Your task to perform on an android device: visit the assistant section in the google photos Image 0: 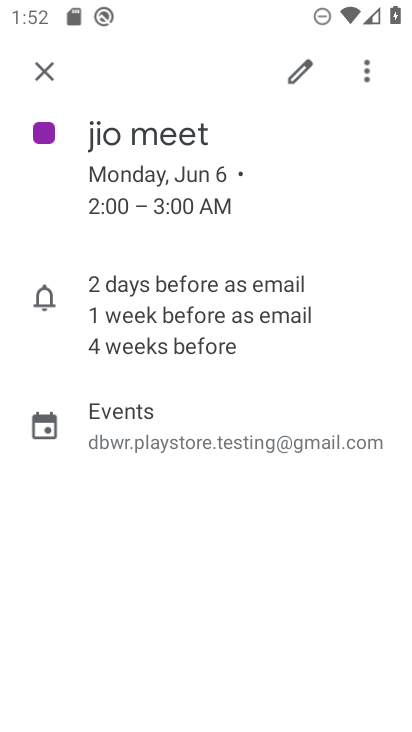
Step 0: press home button
Your task to perform on an android device: visit the assistant section in the google photos Image 1: 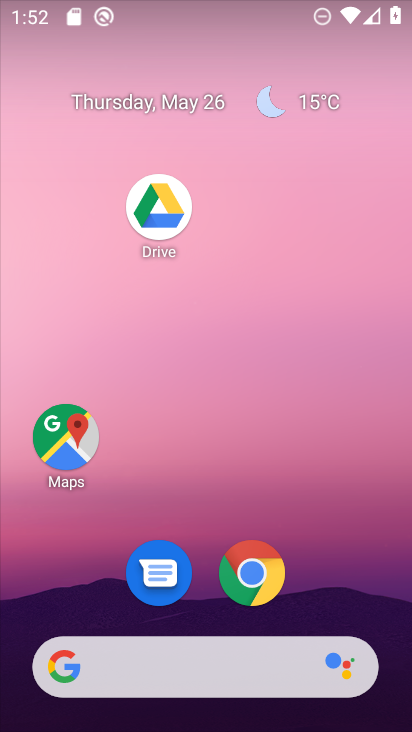
Step 1: drag from (335, 567) to (273, 36)
Your task to perform on an android device: visit the assistant section in the google photos Image 2: 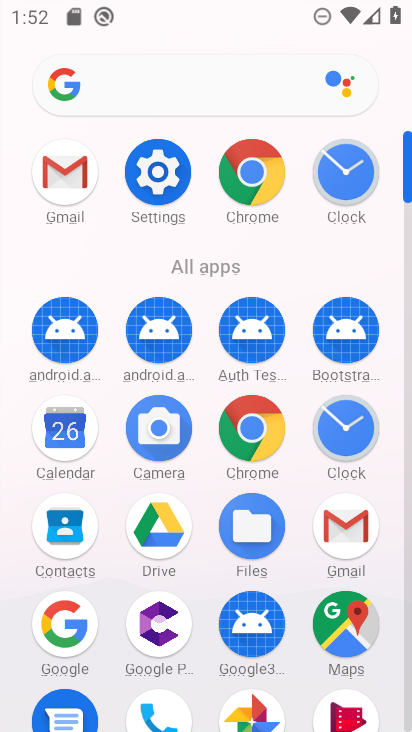
Step 2: drag from (201, 299) to (184, 179)
Your task to perform on an android device: visit the assistant section in the google photos Image 3: 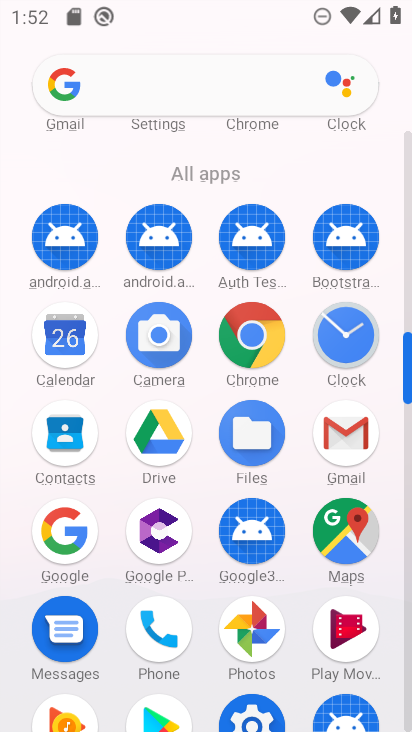
Step 3: click (270, 621)
Your task to perform on an android device: visit the assistant section in the google photos Image 4: 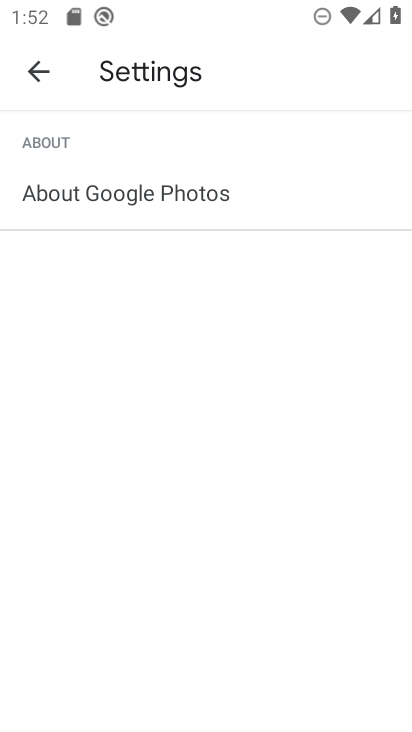
Step 4: click (40, 76)
Your task to perform on an android device: visit the assistant section in the google photos Image 5: 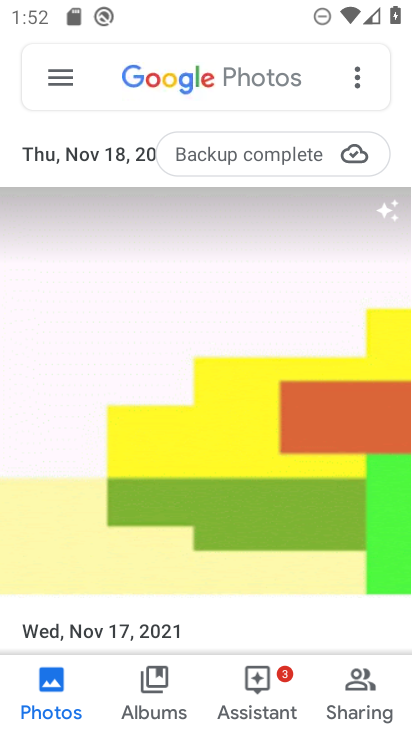
Step 5: click (280, 681)
Your task to perform on an android device: visit the assistant section in the google photos Image 6: 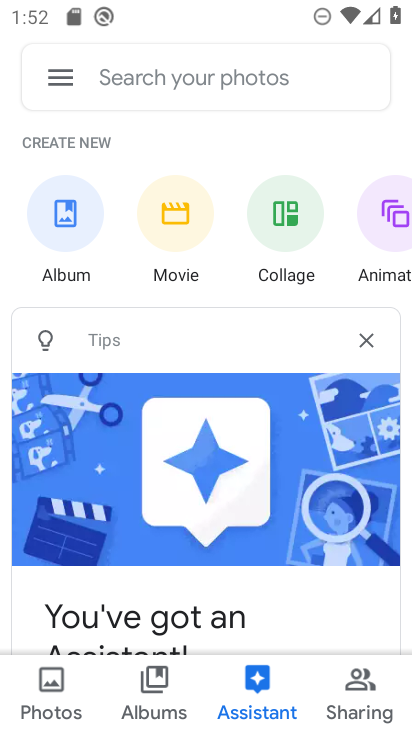
Step 6: task complete